Your task to perform on an android device: Go to Amazon Image 0: 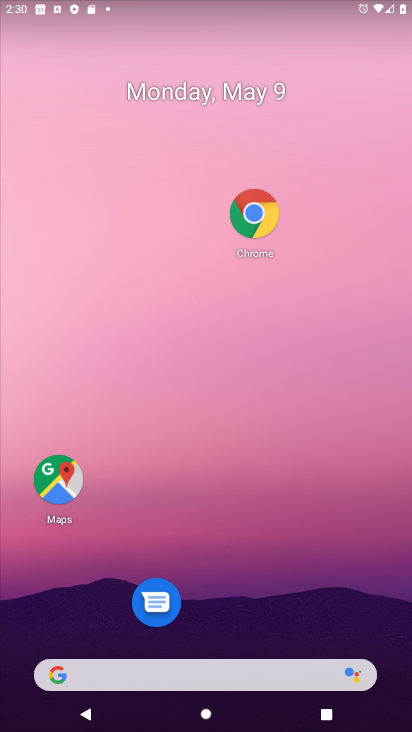
Step 0: click (267, 240)
Your task to perform on an android device: Go to Amazon Image 1: 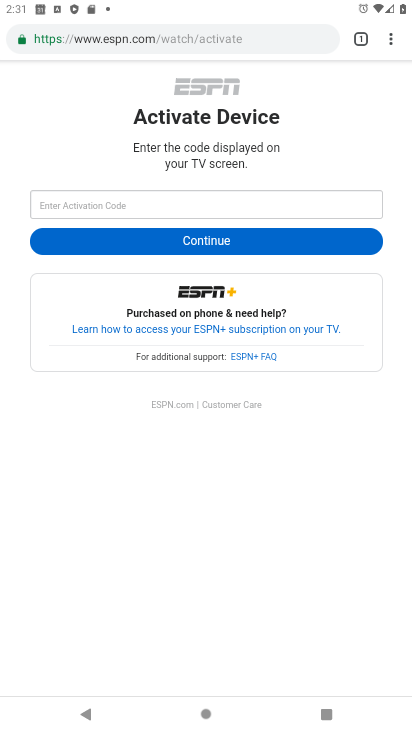
Step 1: click (364, 39)
Your task to perform on an android device: Go to Amazon Image 2: 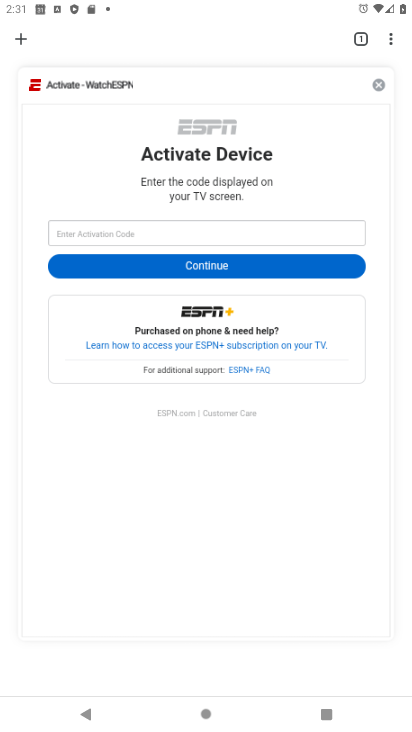
Step 2: click (364, 39)
Your task to perform on an android device: Go to Amazon Image 3: 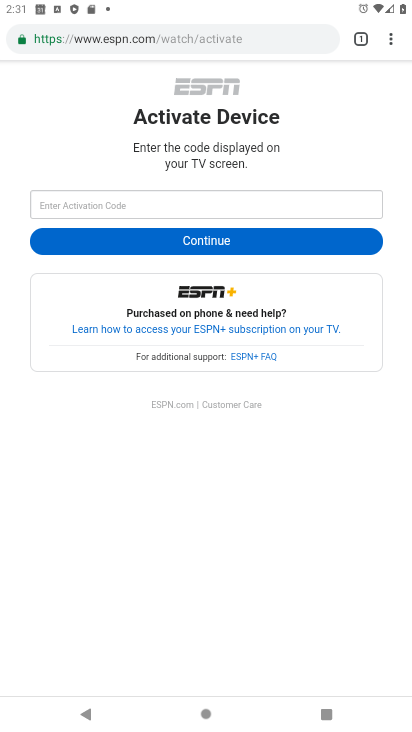
Step 3: click (354, 45)
Your task to perform on an android device: Go to Amazon Image 4: 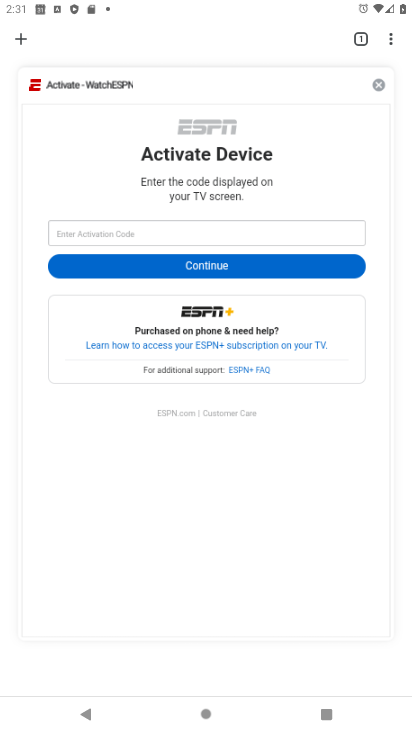
Step 4: click (354, 45)
Your task to perform on an android device: Go to Amazon Image 5: 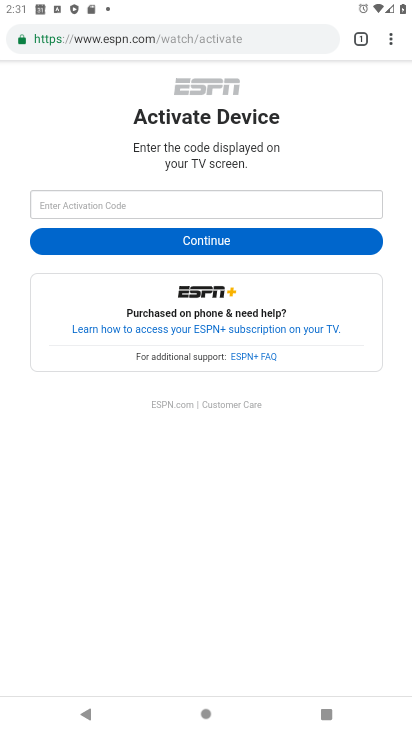
Step 5: click (354, 45)
Your task to perform on an android device: Go to Amazon Image 6: 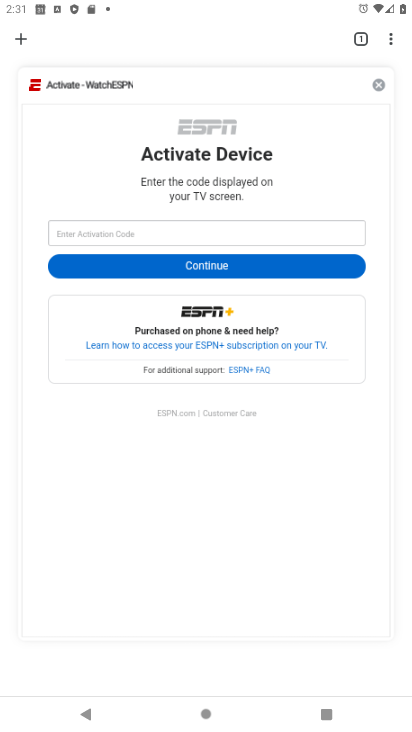
Step 6: click (16, 27)
Your task to perform on an android device: Go to Amazon Image 7: 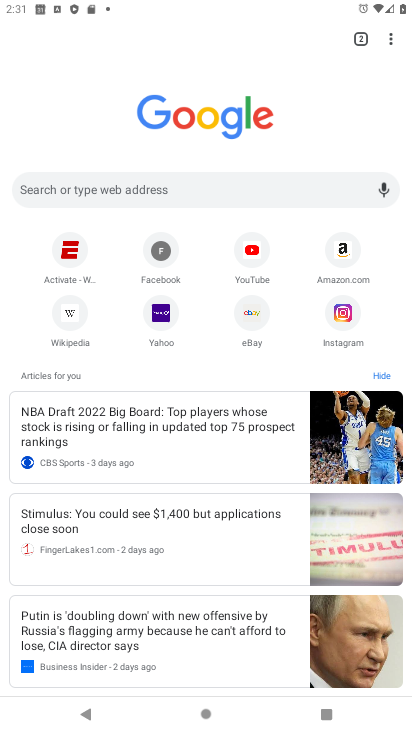
Step 7: click (52, 258)
Your task to perform on an android device: Go to Amazon Image 8: 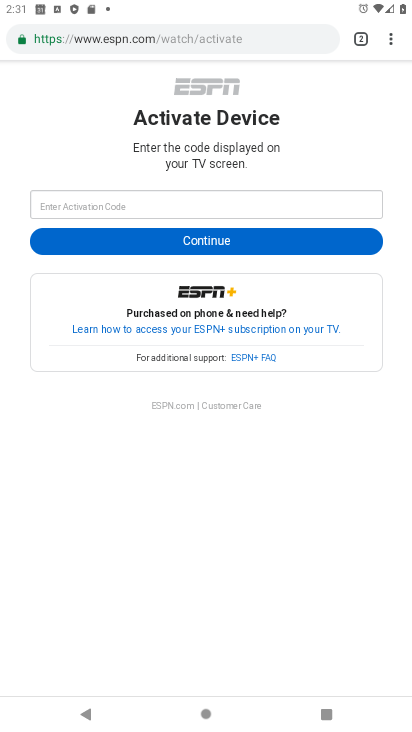
Step 8: click (353, 30)
Your task to perform on an android device: Go to Amazon Image 9: 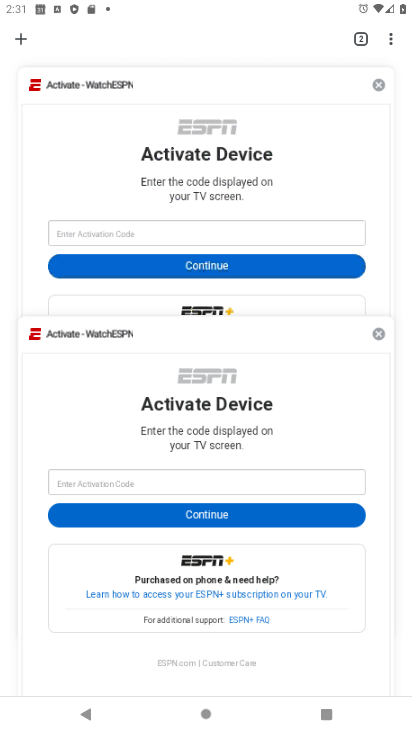
Step 9: click (13, 37)
Your task to perform on an android device: Go to Amazon Image 10: 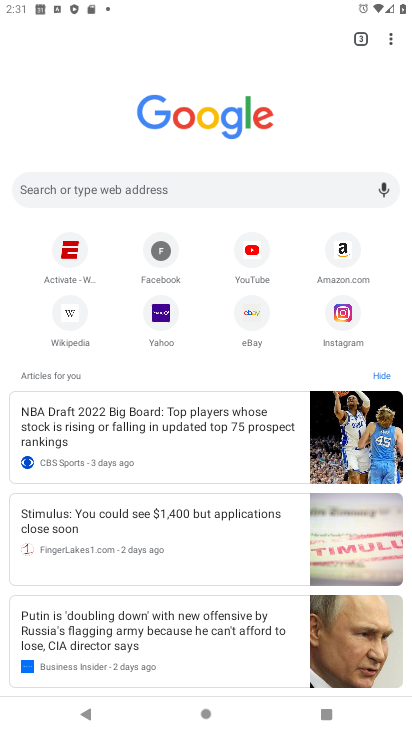
Step 10: click (336, 268)
Your task to perform on an android device: Go to Amazon Image 11: 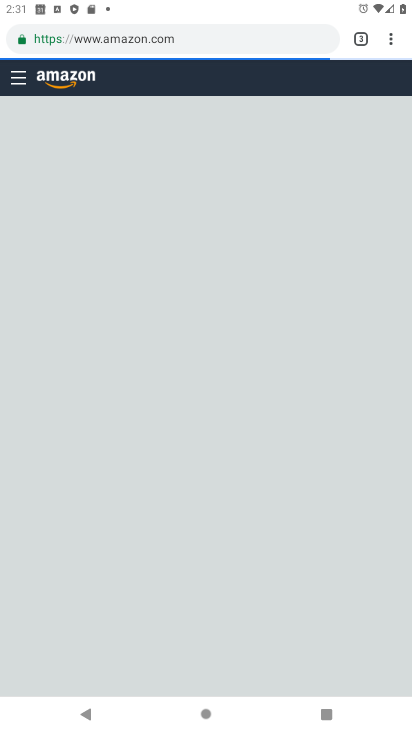
Step 11: task complete